Your task to perform on an android device: change notifications settings Image 0: 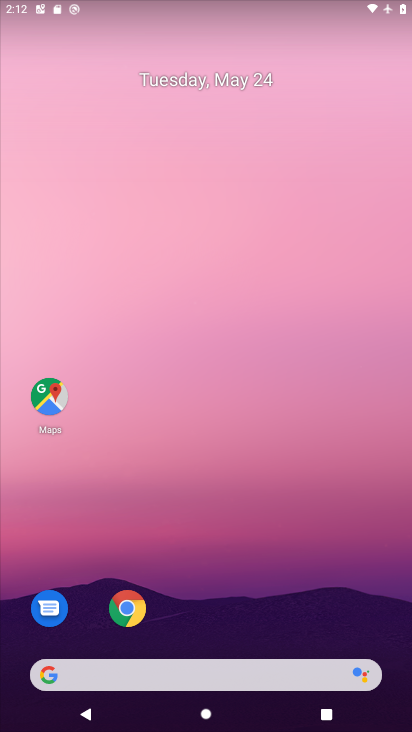
Step 0: drag from (257, 622) to (230, 232)
Your task to perform on an android device: change notifications settings Image 1: 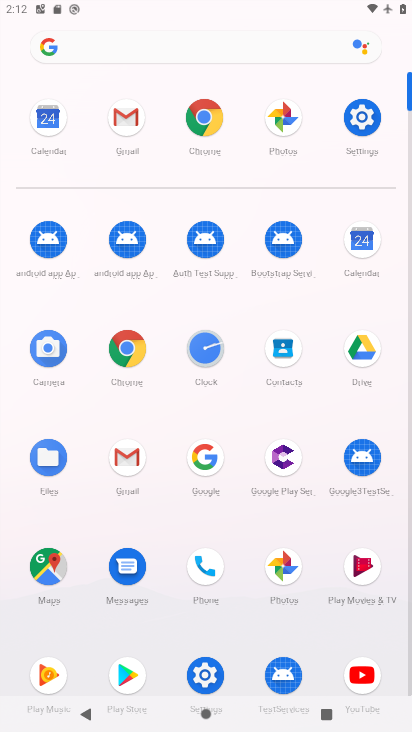
Step 1: click (348, 147)
Your task to perform on an android device: change notifications settings Image 2: 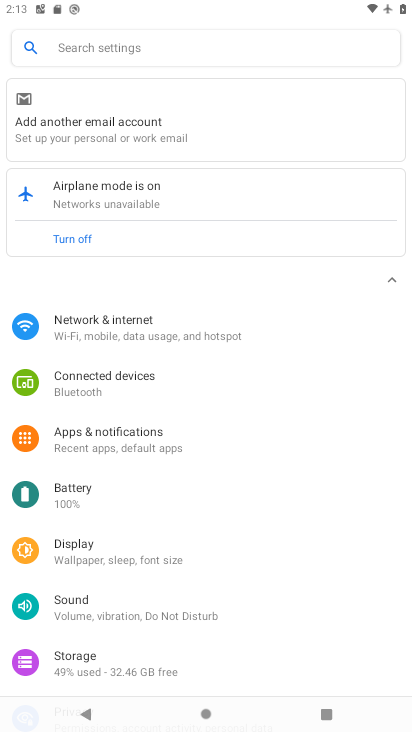
Step 2: click (166, 469)
Your task to perform on an android device: change notifications settings Image 3: 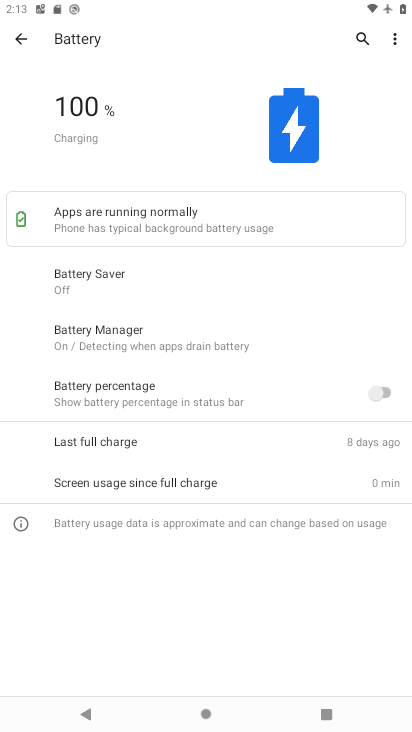
Step 3: click (299, 304)
Your task to perform on an android device: change notifications settings Image 4: 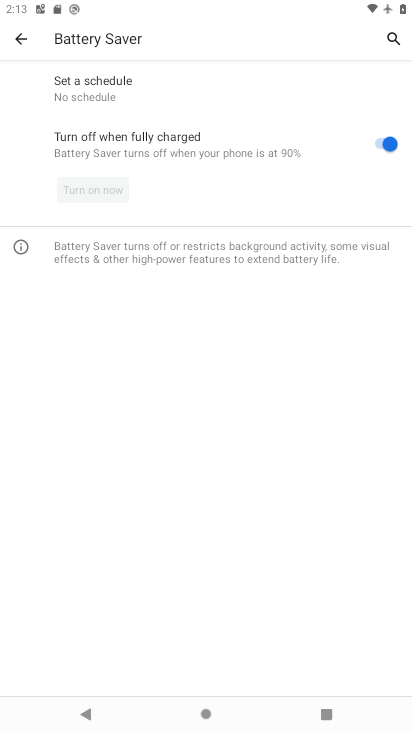
Step 4: task complete